Your task to perform on an android device: Search for vegetarian restaurants on Maps Image 0: 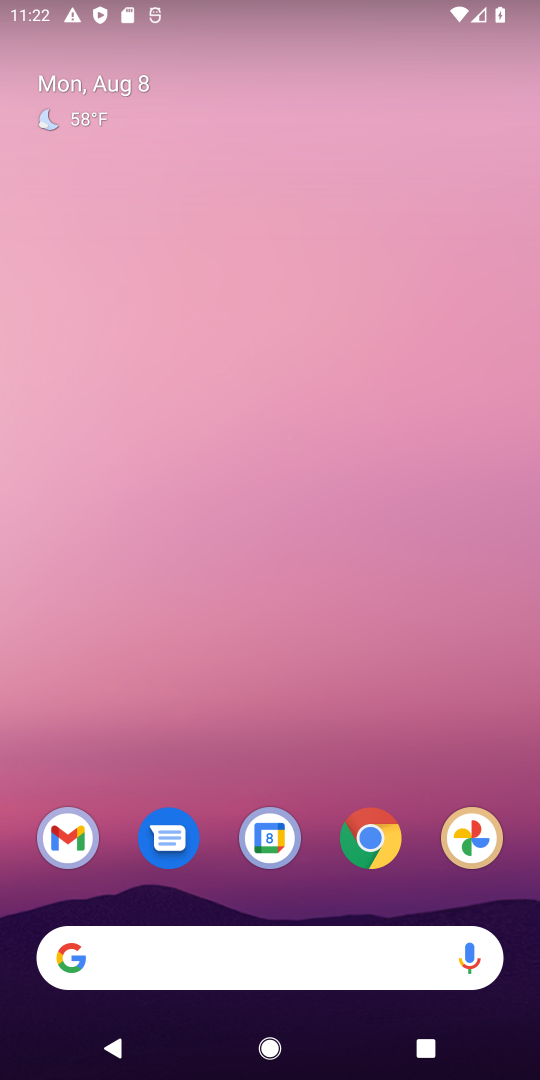
Step 0: drag from (310, 764) to (201, 312)
Your task to perform on an android device: Search for vegetarian restaurants on Maps Image 1: 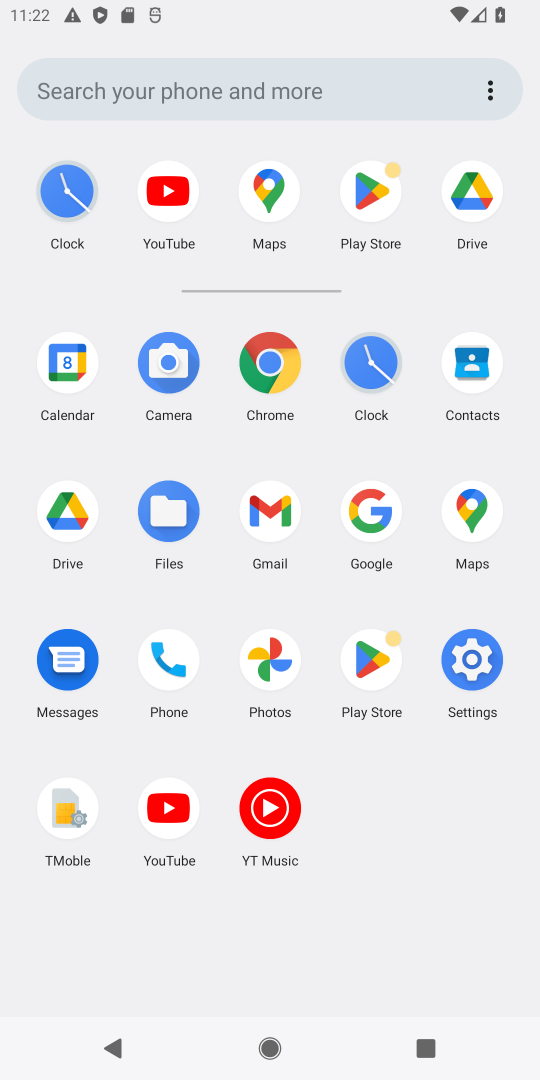
Step 1: click (275, 192)
Your task to perform on an android device: Search for vegetarian restaurants on Maps Image 2: 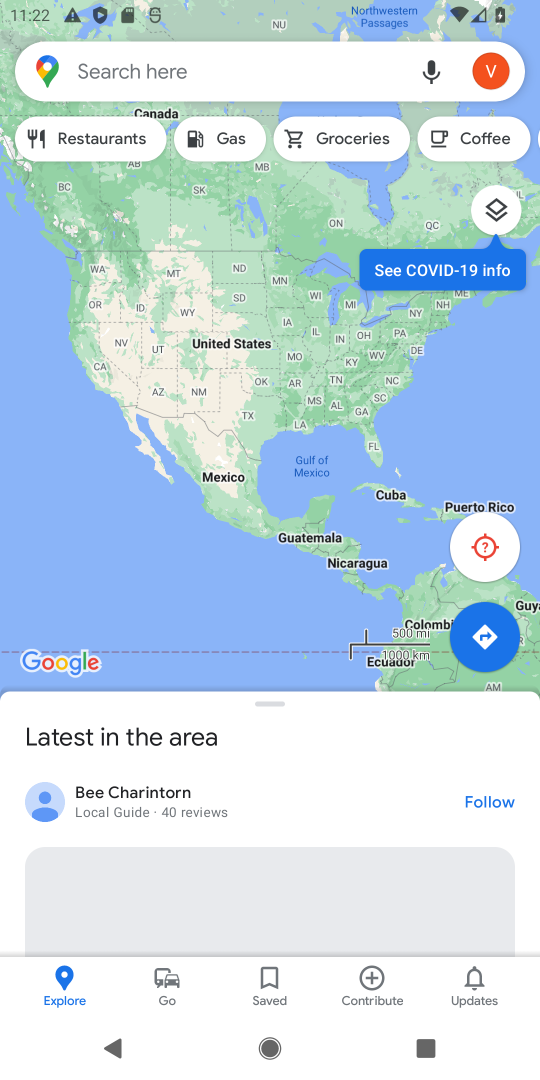
Step 2: click (232, 70)
Your task to perform on an android device: Search for vegetarian restaurants on Maps Image 3: 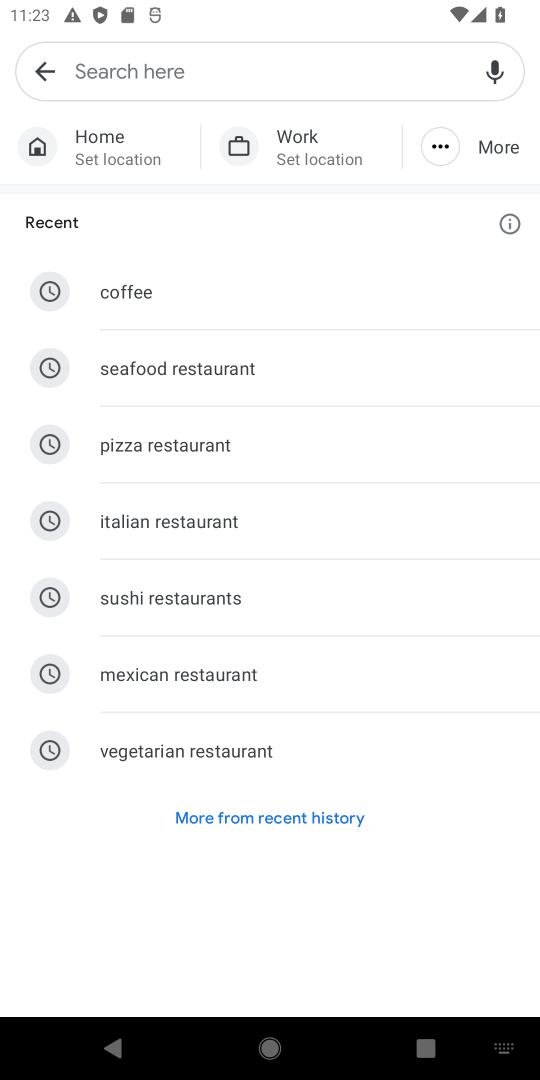
Step 3: type "vegetarian restaurants"
Your task to perform on an android device: Search for vegetarian restaurants on Maps Image 4: 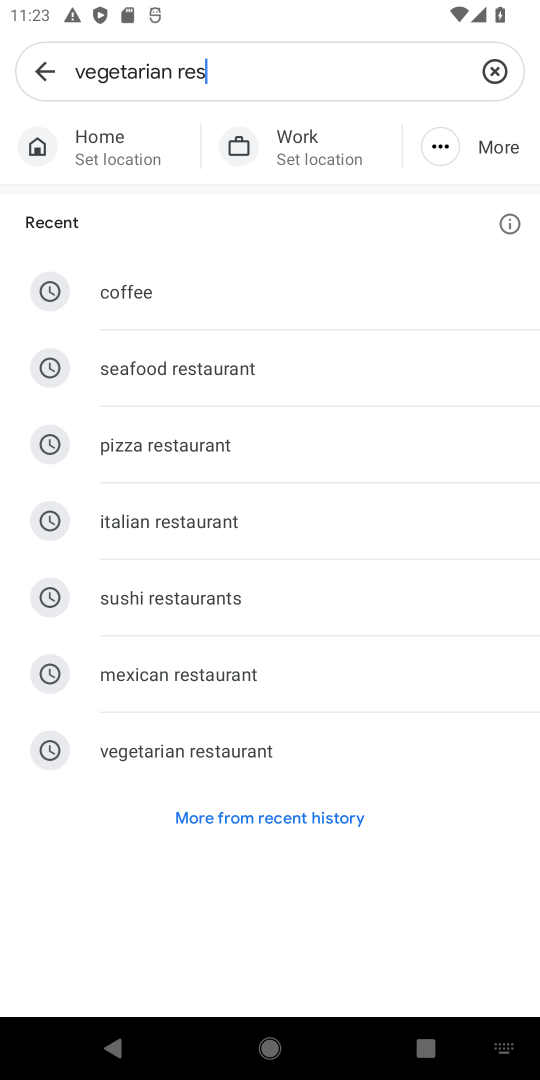
Step 4: press enter
Your task to perform on an android device: Search for vegetarian restaurants on Maps Image 5: 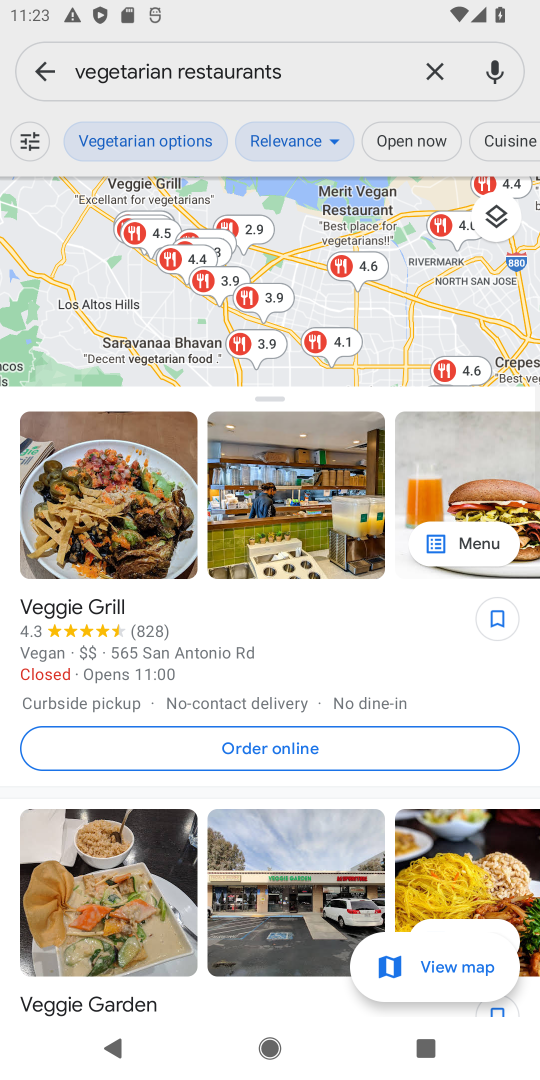
Step 5: task complete